Your task to perform on an android device: Open eBay Image 0: 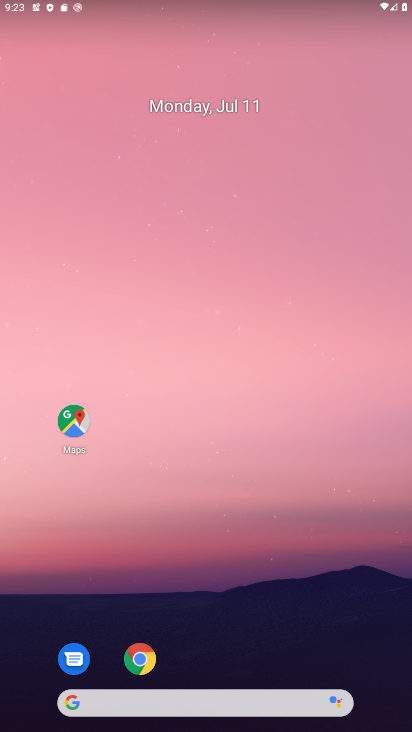
Step 0: click (140, 662)
Your task to perform on an android device: Open eBay Image 1: 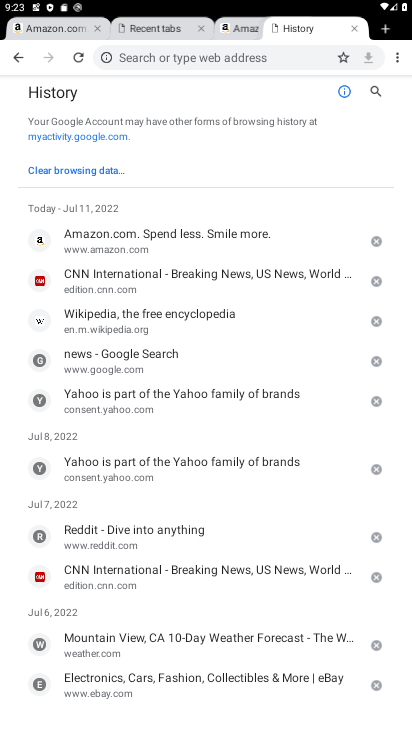
Step 1: click (399, 58)
Your task to perform on an android device: Open eBay Image 2: 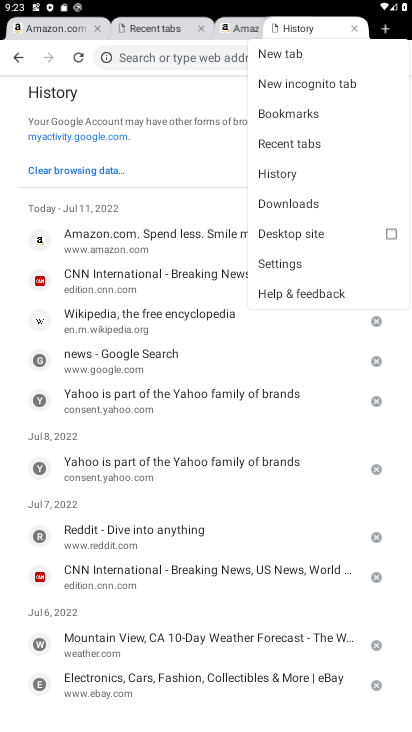
Step 2: click (299, 50)
Your task to perform on an android device: Open eBay Image 3: 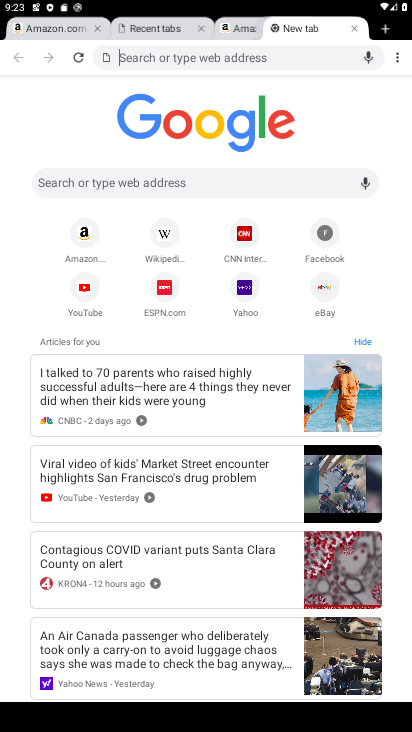
Step 3: click (325, 284)
Your task to perform on an android device: Open eBay Image 4: 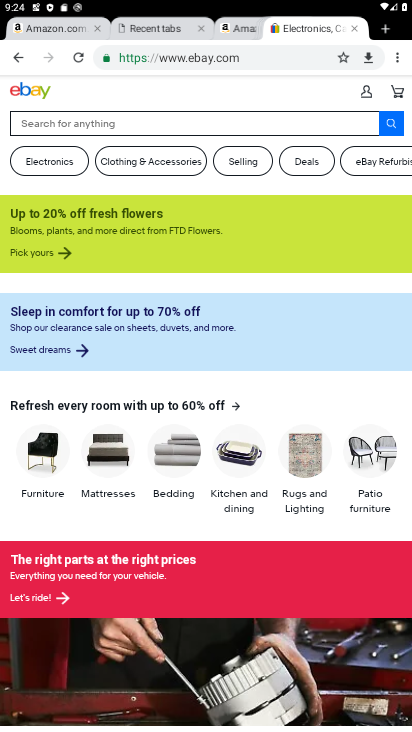
Step 4: task complete